Your task to perform on an android device: Open internet settings Image 0: 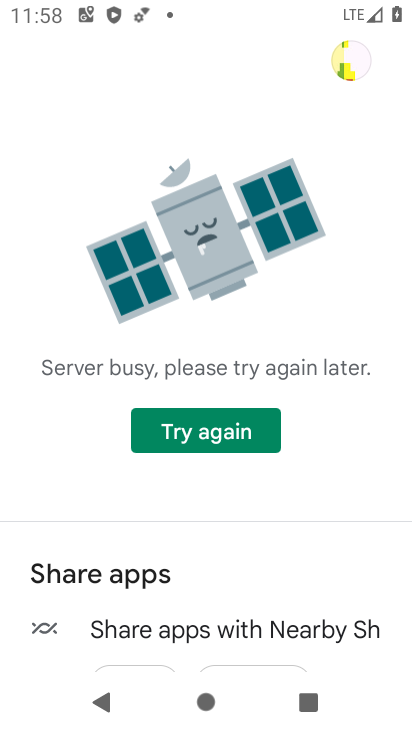
Step 0: press home button
Your task to perform on an android device: Open internet settings Image 1: 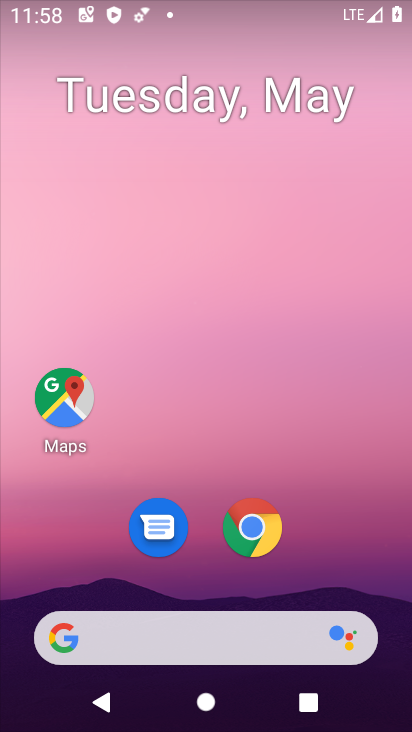
Step 1: drag from (334, 640) to (189, 233)
Your task to perform on an android device: Open internet settings Image 2: 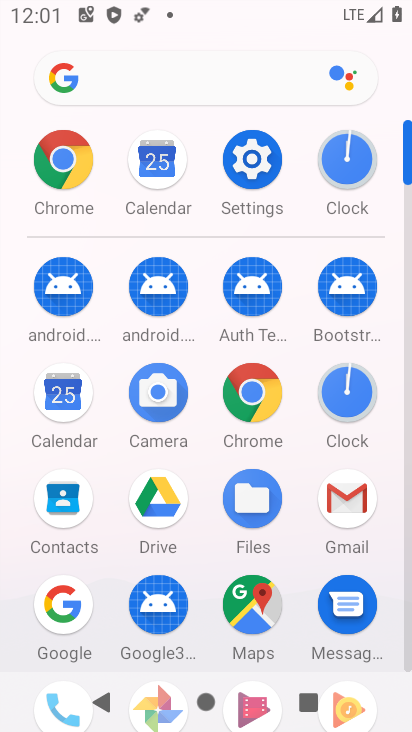
Step 2: click (255, 176)
Your task to perform on an android device: Open internet settings Image 3: 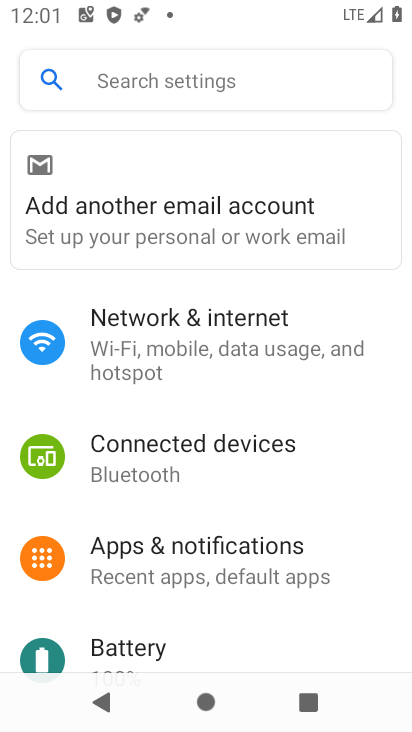
Step 3: click (249, 210)
Your task to perform on an android device: Open internet settings Image 4: 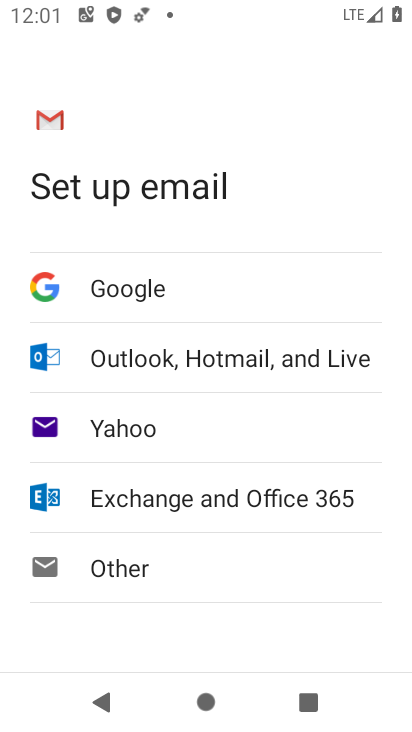
Step 4: press back button
Your task to perform on an android device: Open internet settings Image 5: 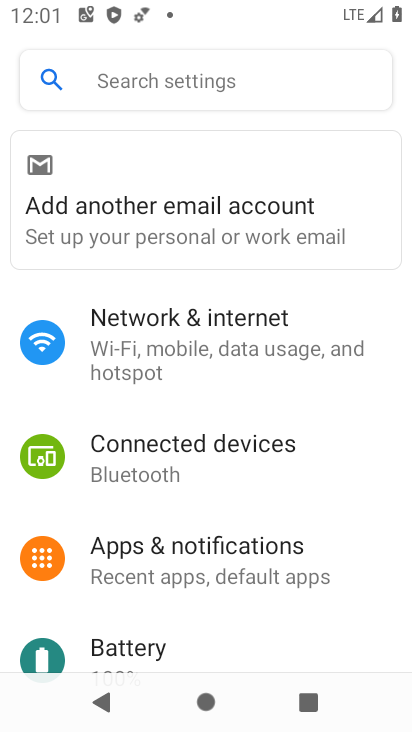
Step 5: click (260, 316)
Your task to perform on an android device: Open internet settings Image 6: 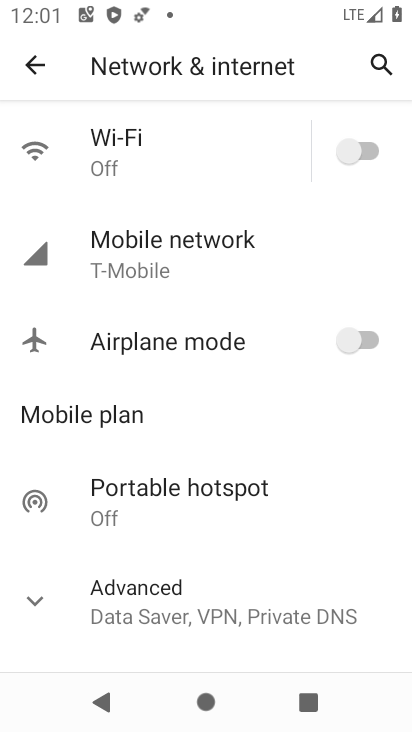
Step 6: task complete